Your task to perform on an android device: check out phone information Image 0: 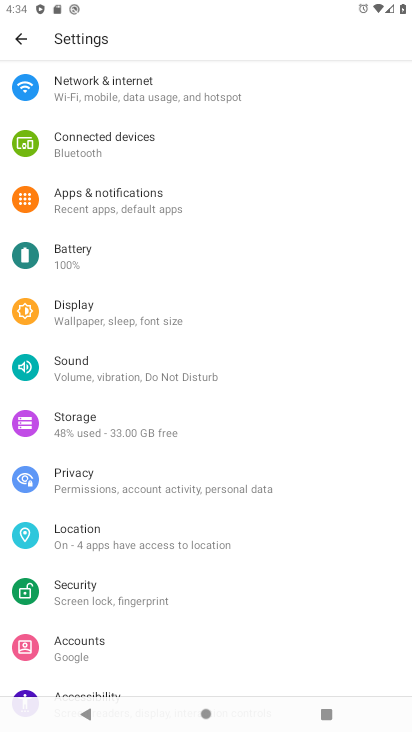
Step 0: click (81, 716)
Your task to perform on an android device: check out phone information Image 1: 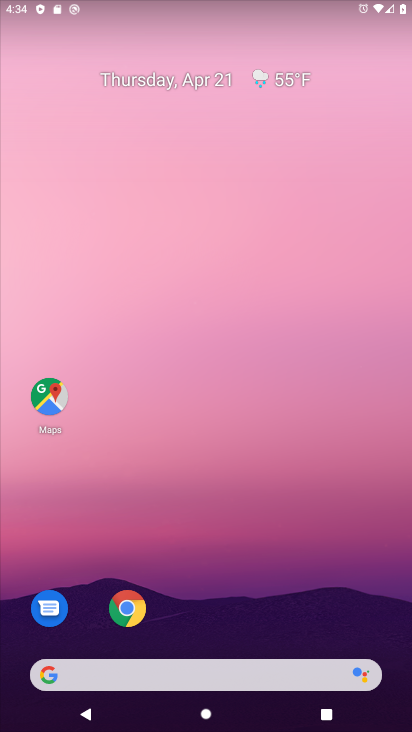
Step 1: drag from (196, 575) to (285, 115)
Your task to perform on an android device: check out phone information Image 2: 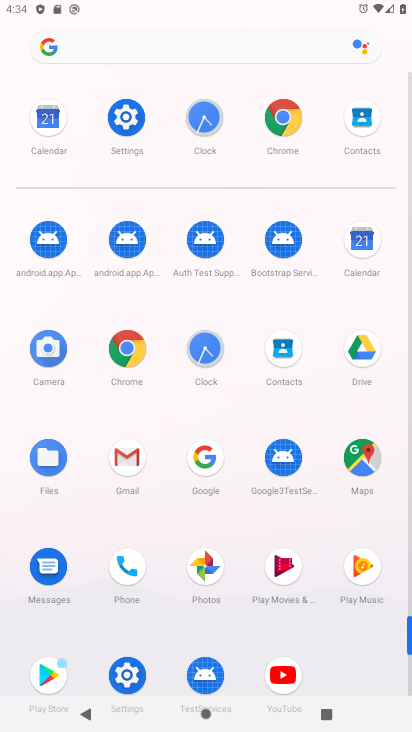
Step 2: click (131, 125)
Your task to perform on an android device: check out phone information Image 3: 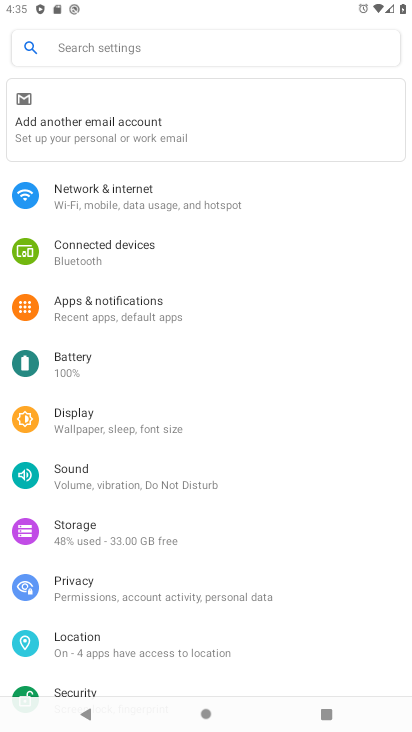
Step 3: drag from (226, 559) to (307, 89)
Your task to perform on an android device: check out phone information Image 4: 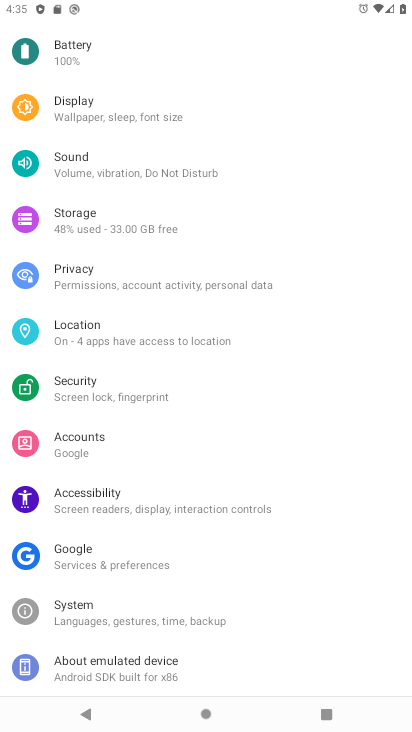
Step 4: drag from (197, 595) to (253, 57)
Your task to perform on an android device: check out phone information Image 5: 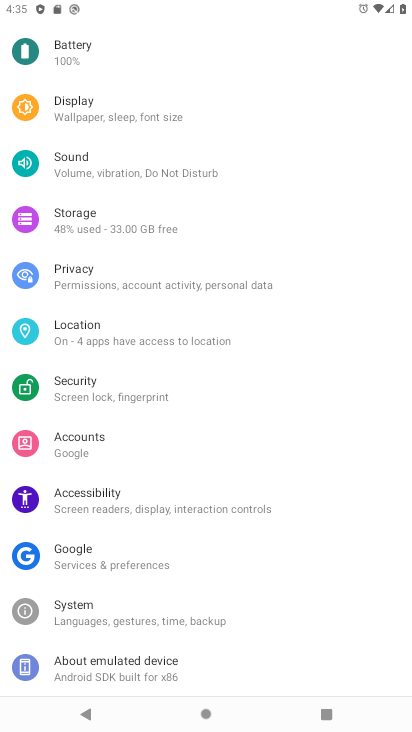
Step 5: drag from (227, 580) to (268, 143)
Your task to perform on an android device: check out phone information Image 6: 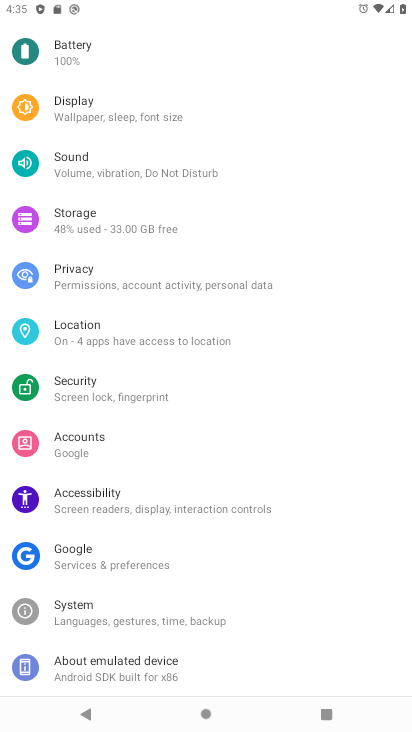
Step 6: click (151, 669)
Your task to perform on an android device: check out phone information Image 7: 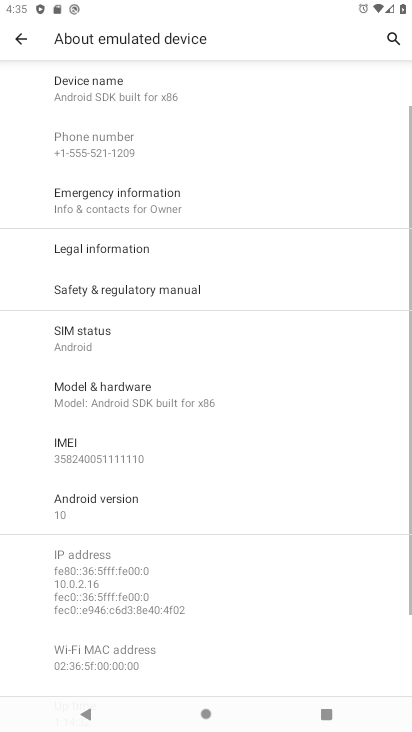
Step 7: task complete